Your task to perform on an android device: What is the news today? Image 0: 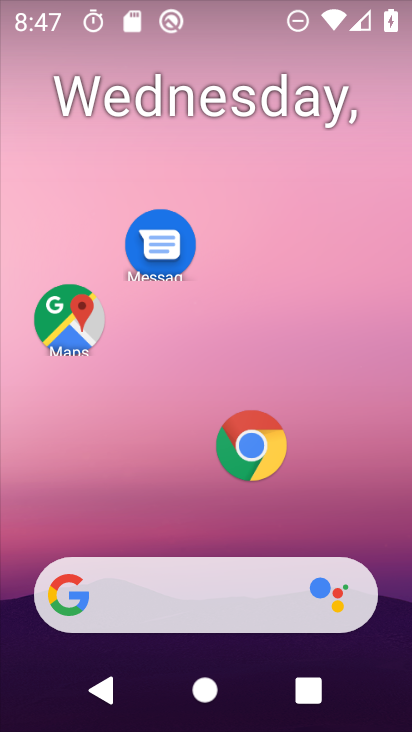
Step 0: drag from (204, 529) to (239, 50)
Your task to perform on an android device: What is the news today? Image 1: 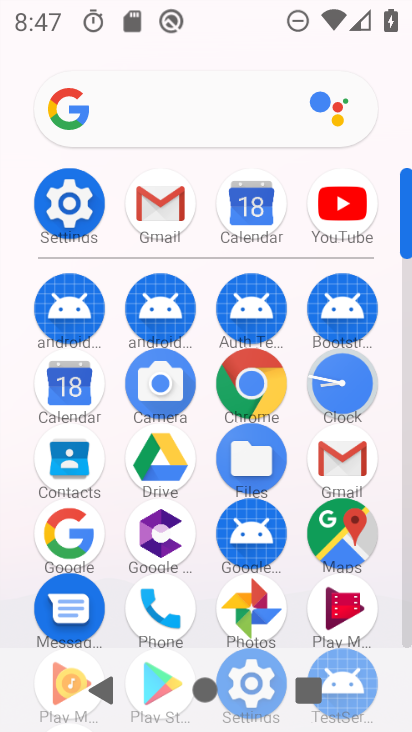
Step 1: task complete